Your task to perform on an android device: Open the phone app and click the voicemail tab. Image 0: 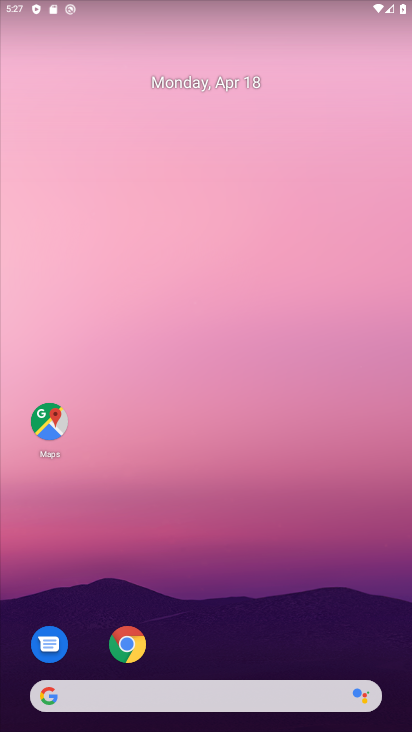
Step 0: press home button
Your task to perform on an android device: Open the phone app and click the voicemail tab. Image 1: 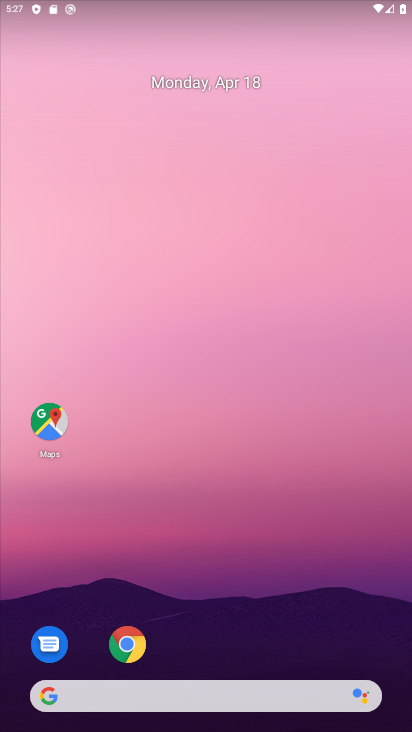
Step 1: drag from (197, 654) to (235, 33)
Your task to perform on an android device: Open the phone app and click the voicemail tab. Image 2: 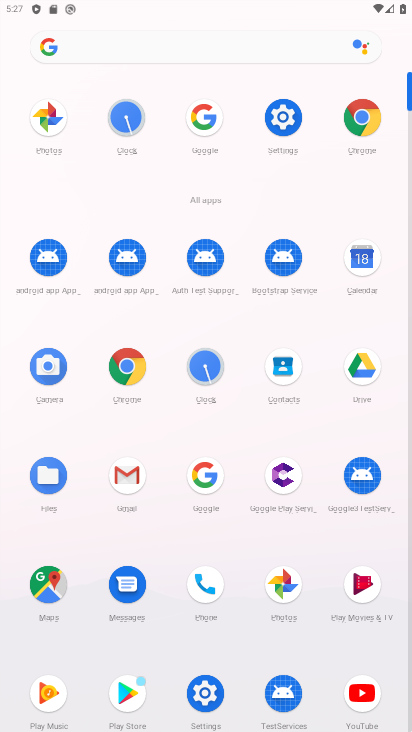
Step 2: click (201, 585)
Your task to perform on an android device: Open the phone app and click the voicemail tab. Image 3: 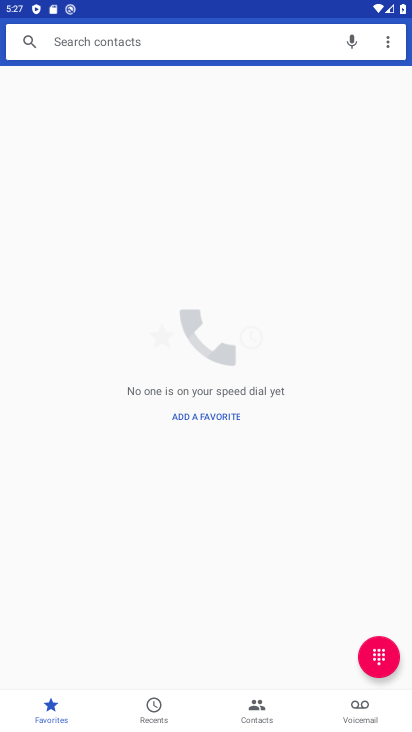
Step 3: click (357, 699)
Your task to perform on an android device: Open the phone app and click the voicemail tab. Image 4: 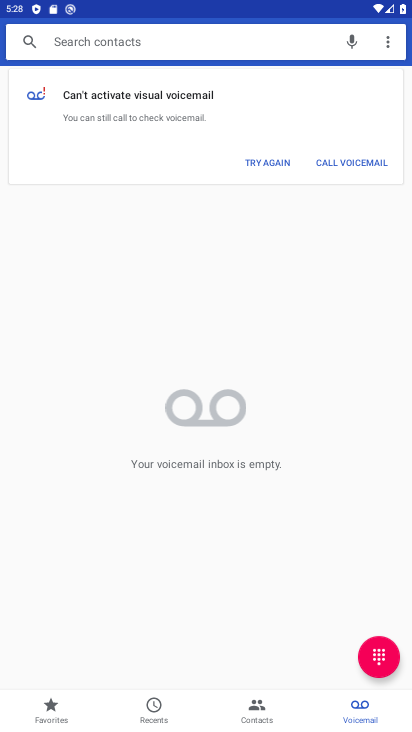
Step 4: task complete